Your task to perform on an android device: turn off notifications settings in the gmail app Image 0: 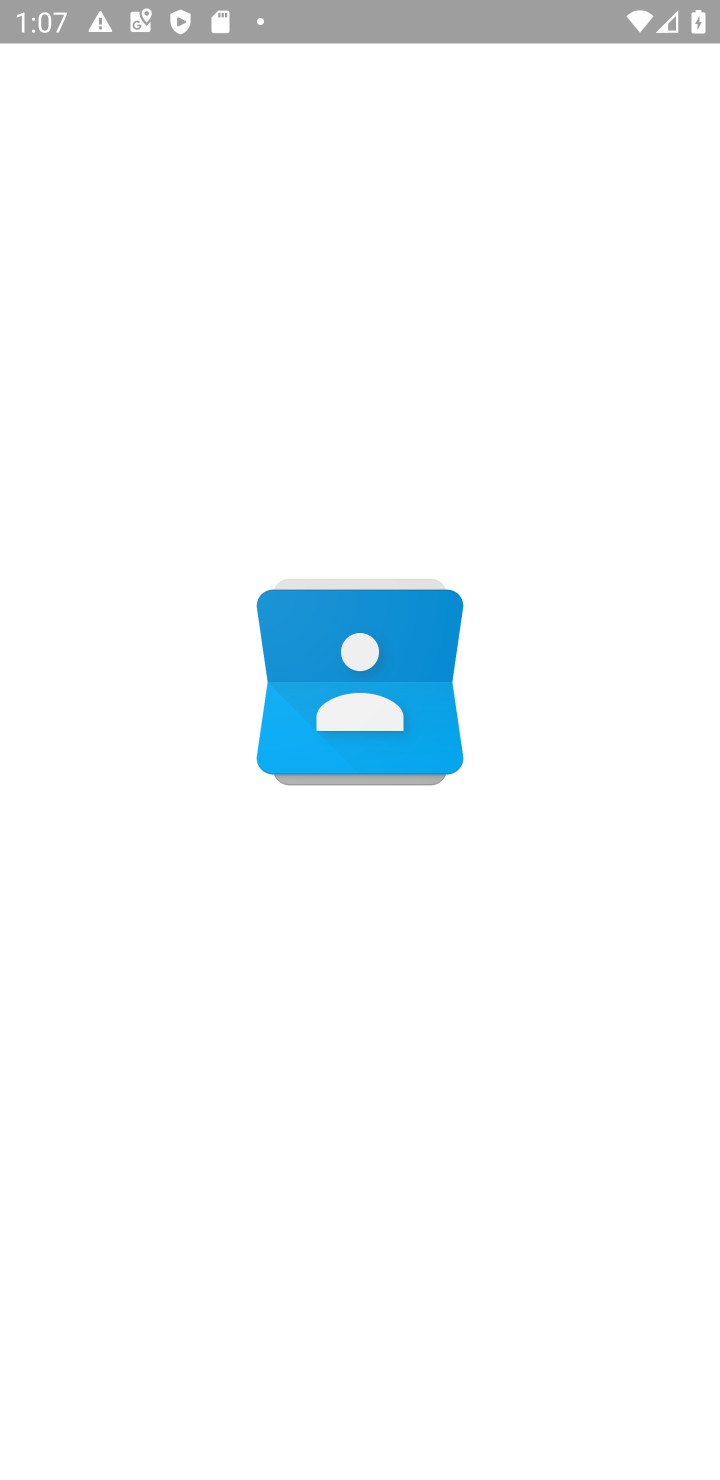
Step 0: press back button
Your task to perform on an android device: turn off notifications settings in the gmail app Image 1: 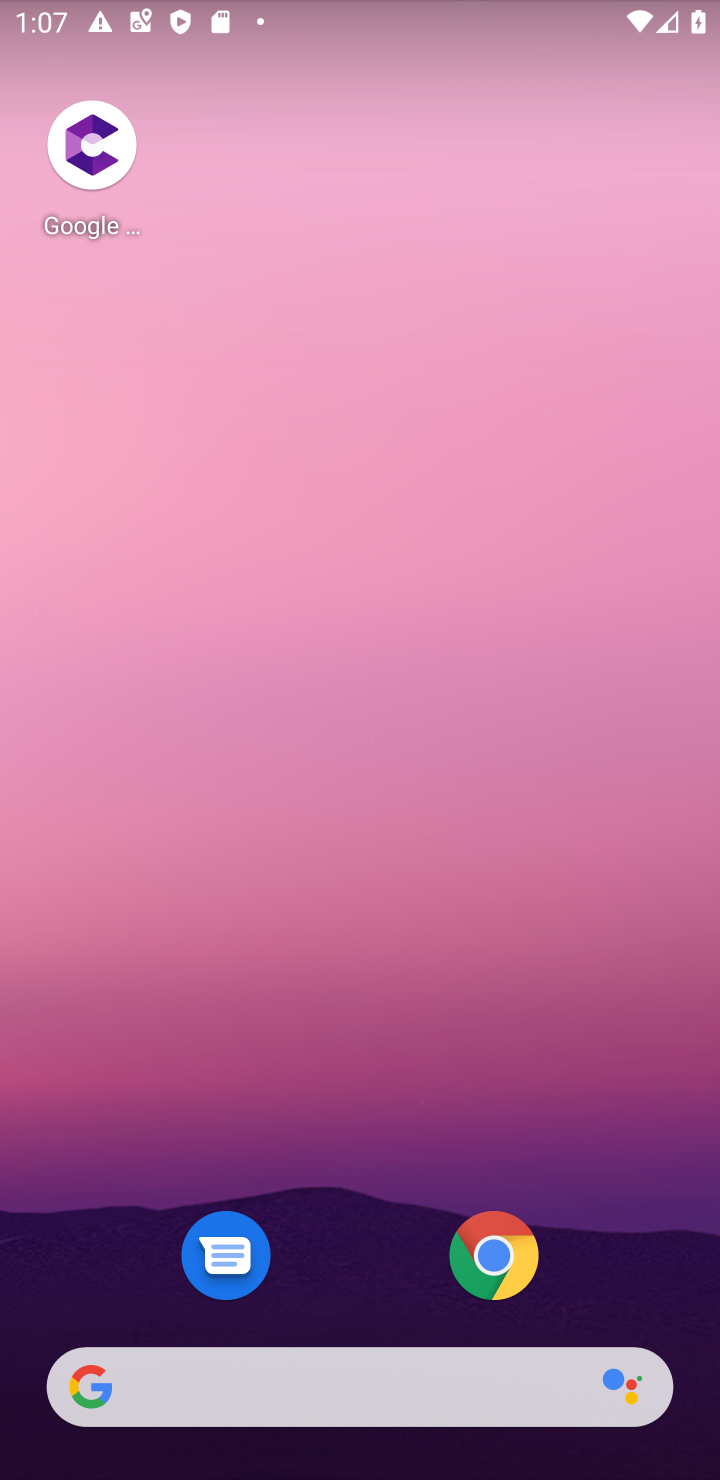
Step 1: drag from (657, 1219) to (370, 234)
Your task to perform on an android device: turn off notifications settings in the gmail app Image 2: 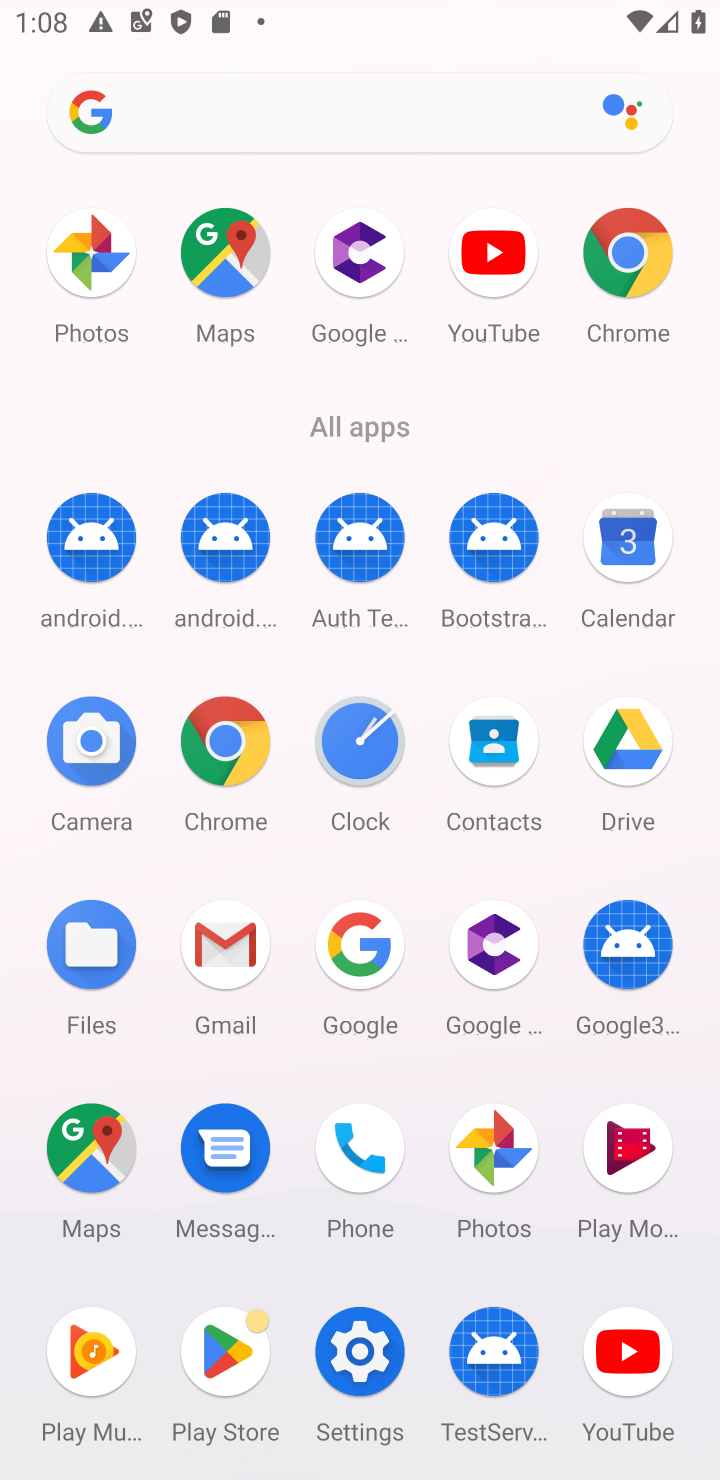
Step 2: click (241, 982)
Your task to perform on an android device: turn off notifications settings in the gmail app Image 3: 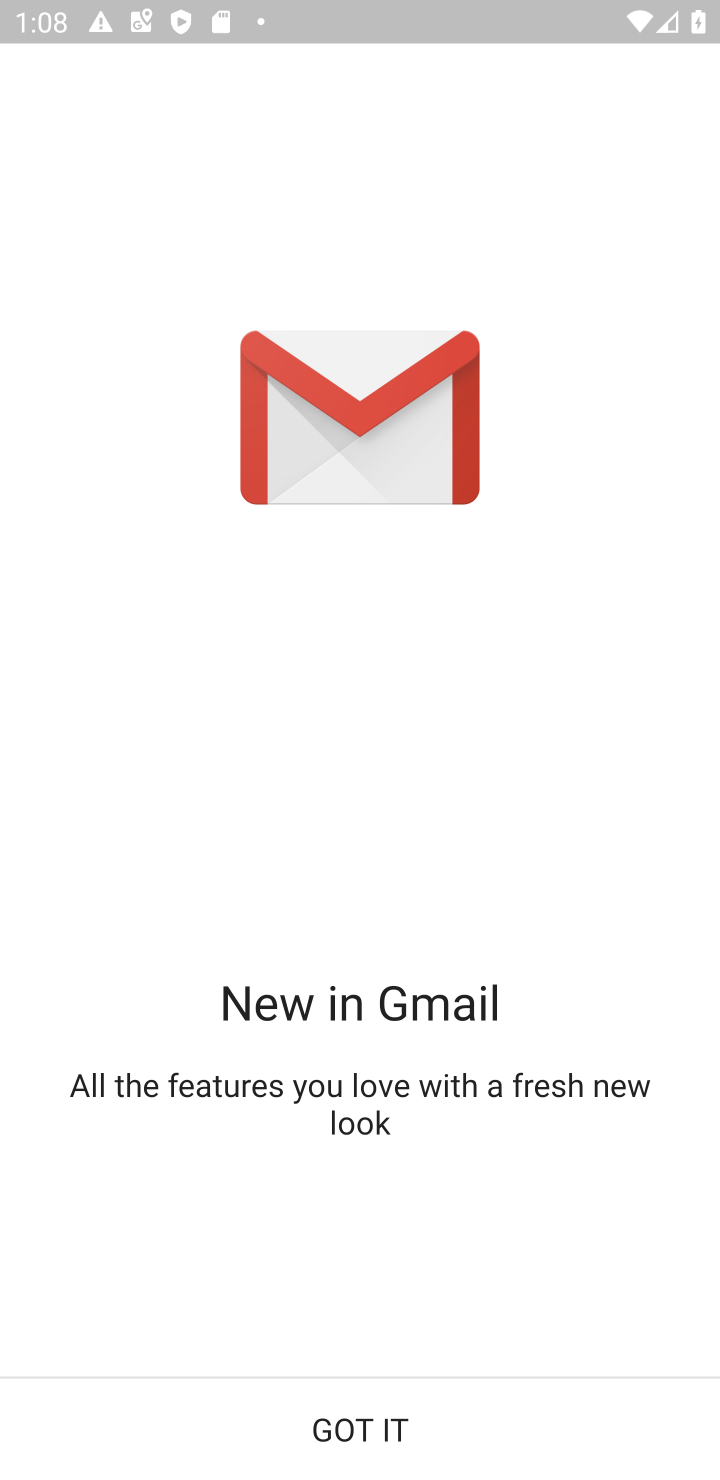
Step 3: click (397, 1424)
Your task to perform on an android device: turn off notifications settings in the gmail app Image 4: 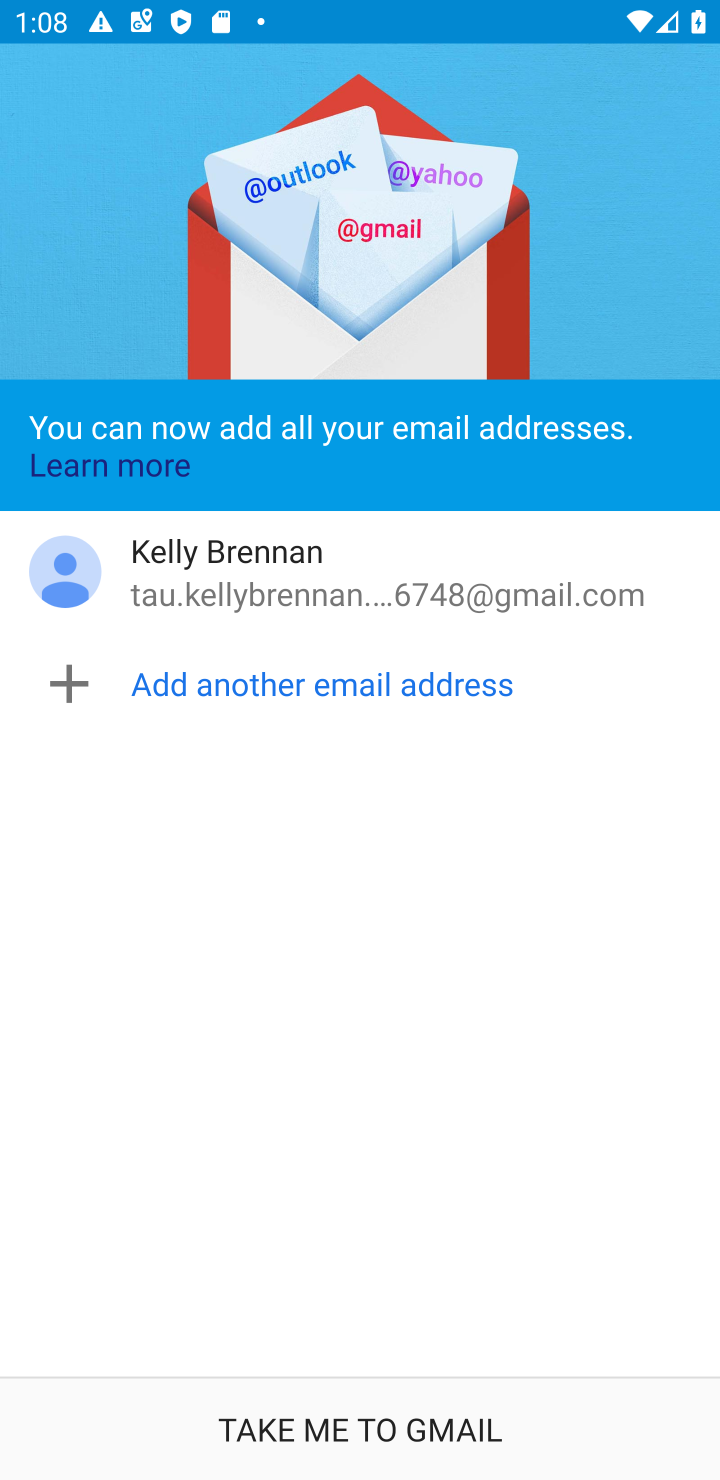
Step 4: click (398, 1424)
Your task to perform on an android device: turn off notifications settings in the gmail app Image 5: 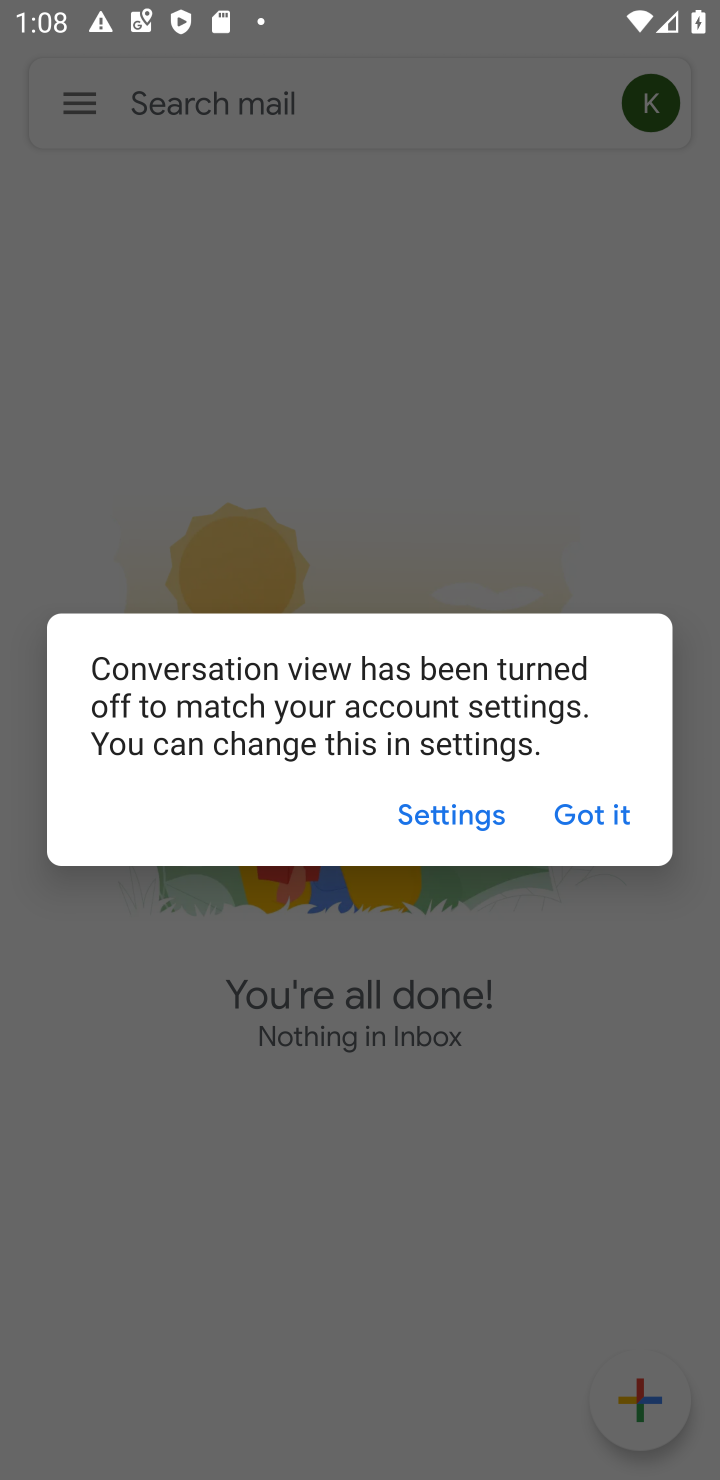
Step 5: click (619, 826)
Your task to perform on an android device: turn off notifications settings in the gmail app Image 6: 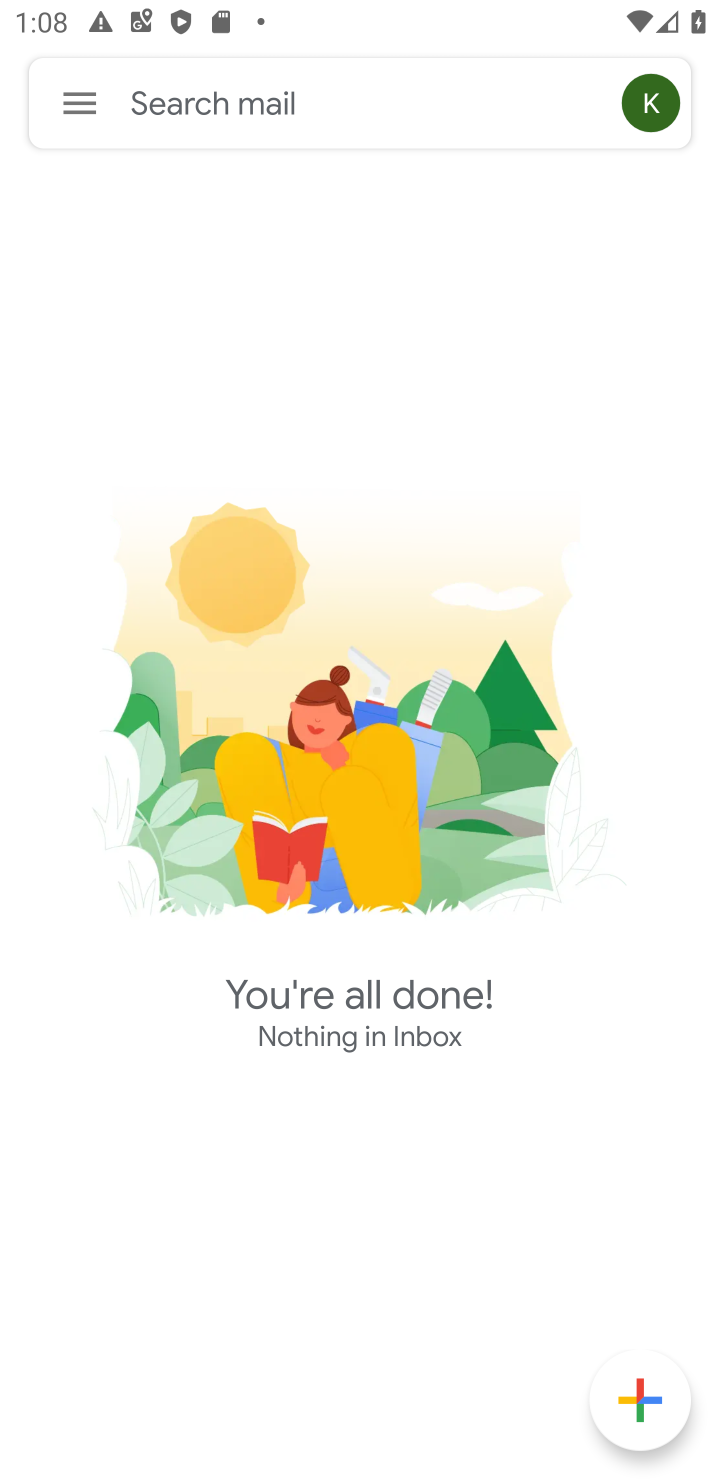
Step 6: click (82, 97)
Your task to perform on an android device: turn off notifications settings in the gmail app Image 7: 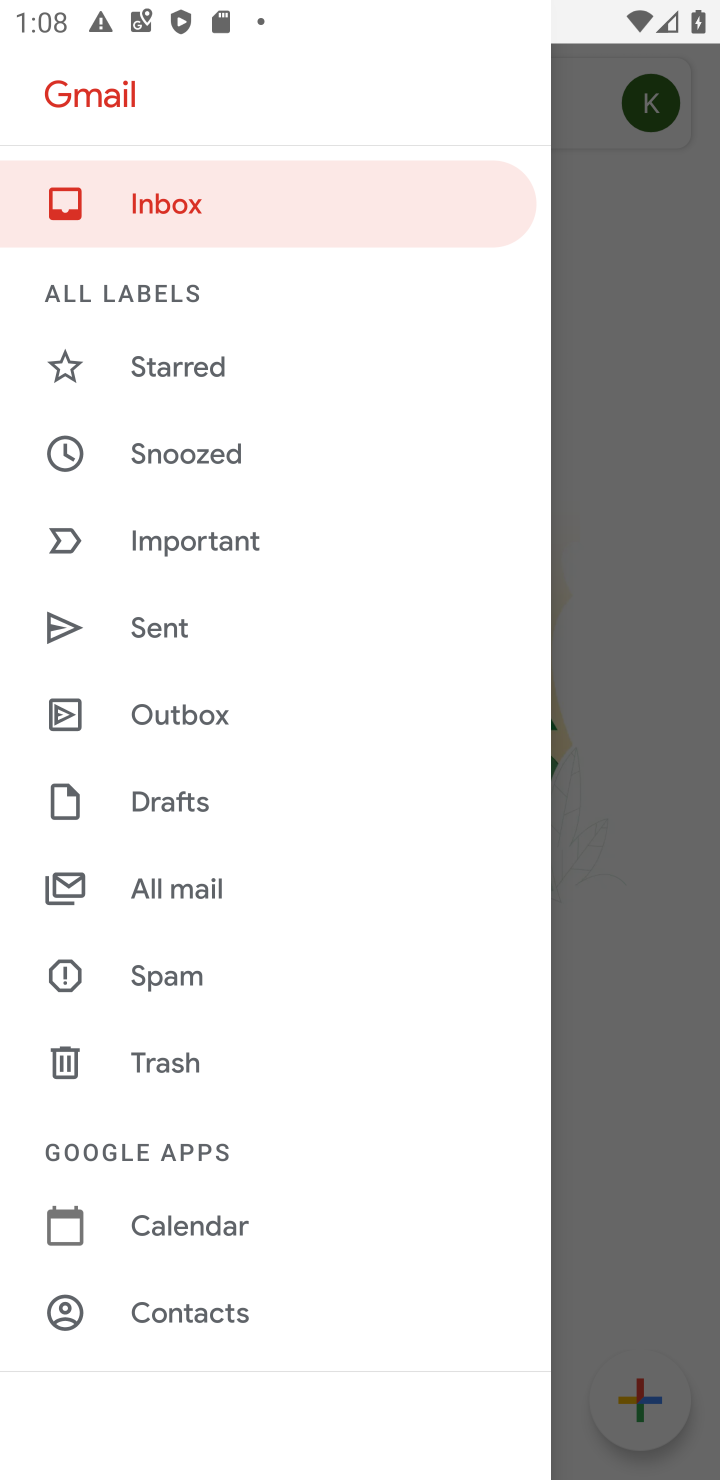
Step 7: drag from (338, 1283) to (167, 433)
Your task to perform on an android device: turn off notifications settings in the gmail app Image 8: 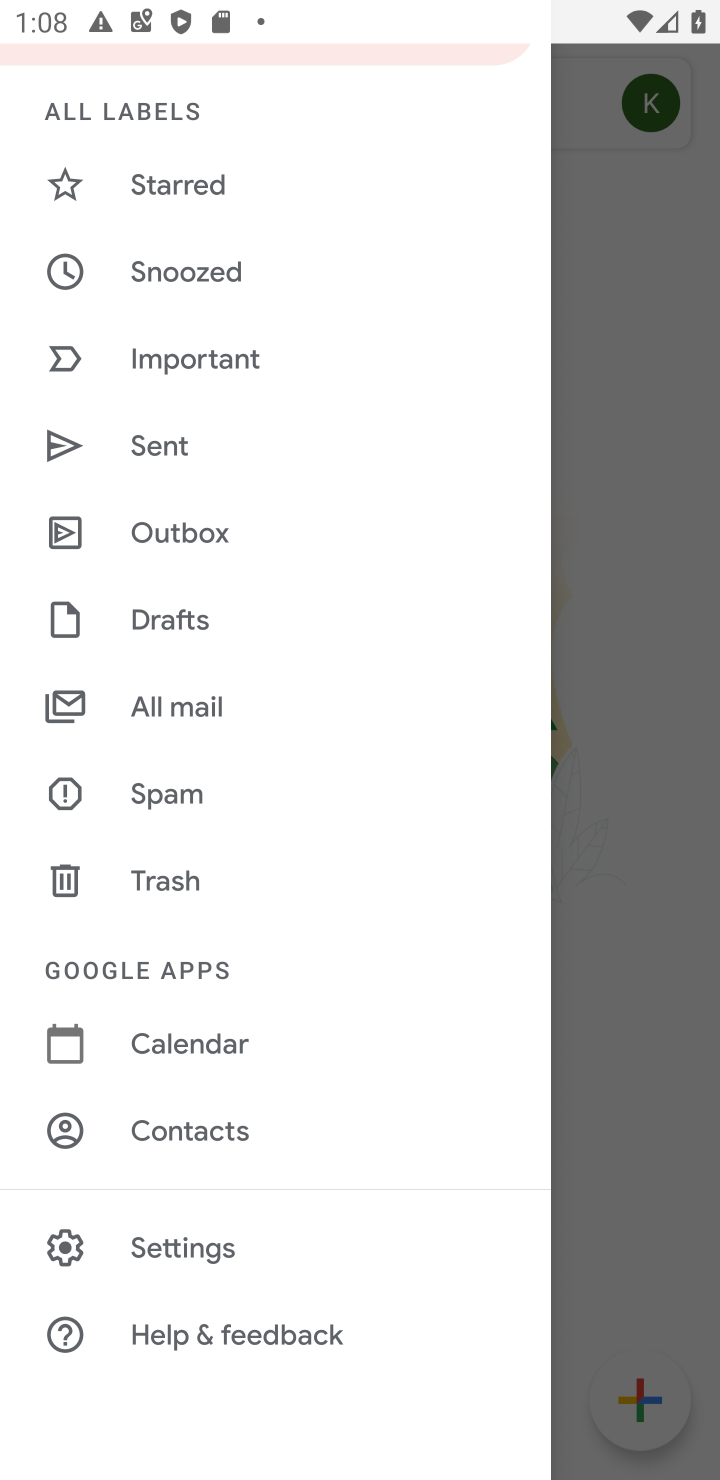
Step 8: click (256, 1267)
Your task to perform on an android device: turn off notifications settings in the gmail app Image 9: 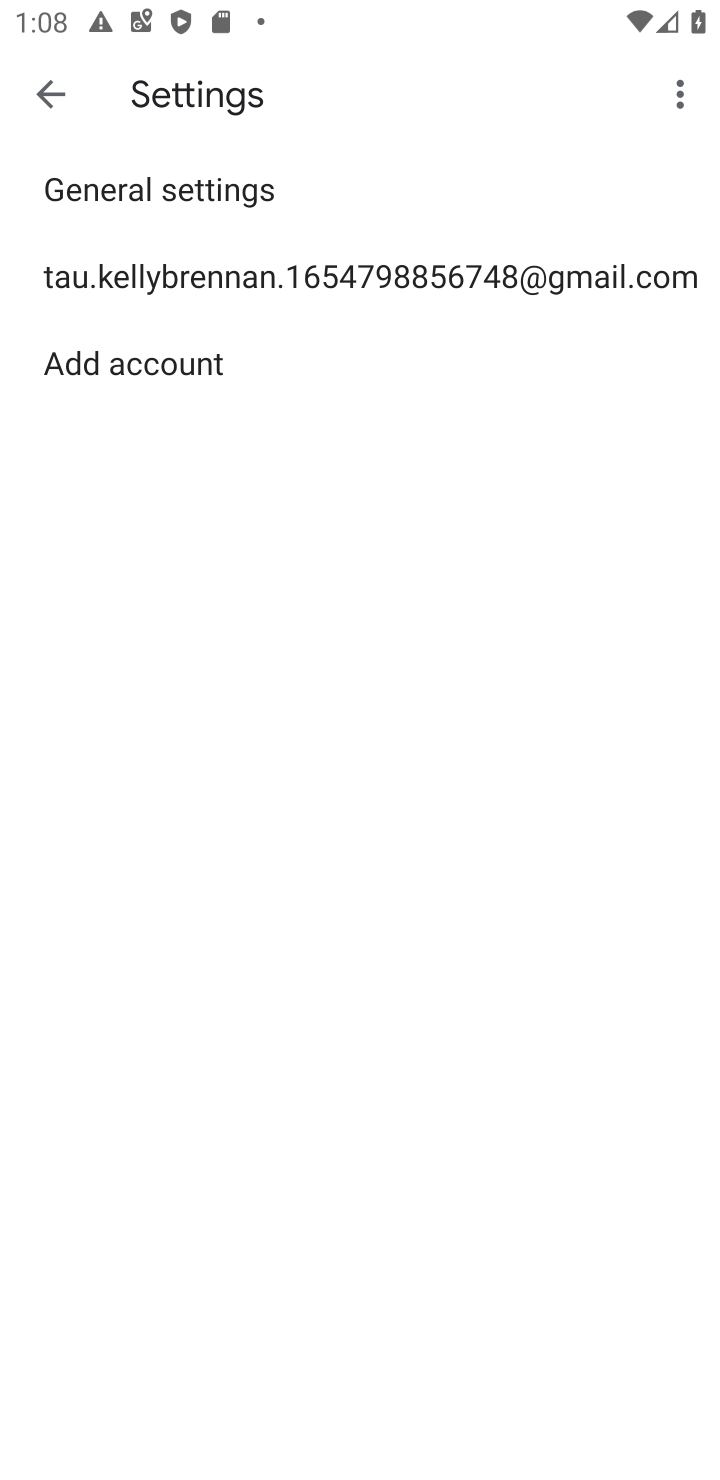
Step 9: click (523, 276)
Your task to perform on an android device: turn off notifications settings in the gmail app Image 10: 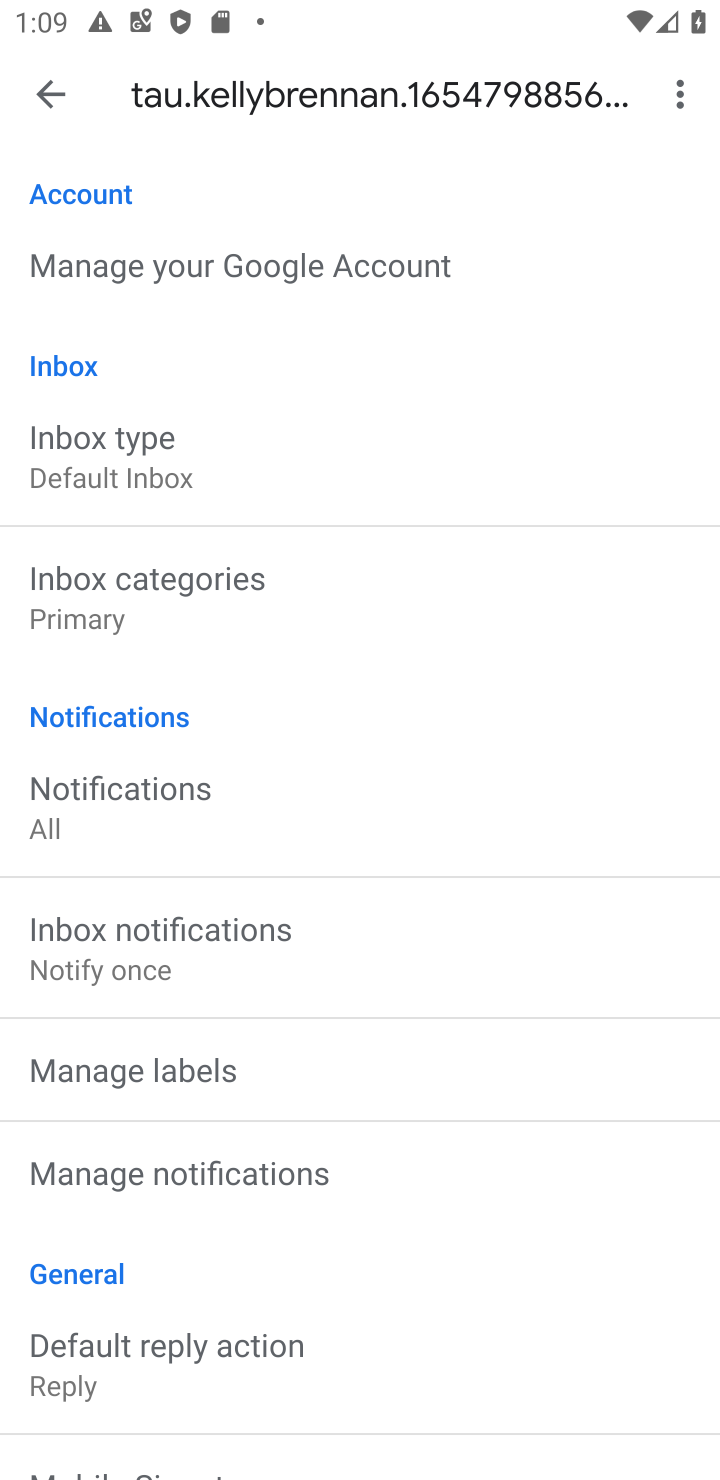
Step 10: click (300, 1188)
Your task to perform on an android device: turn off notifications settings in the gmail app Image 11: 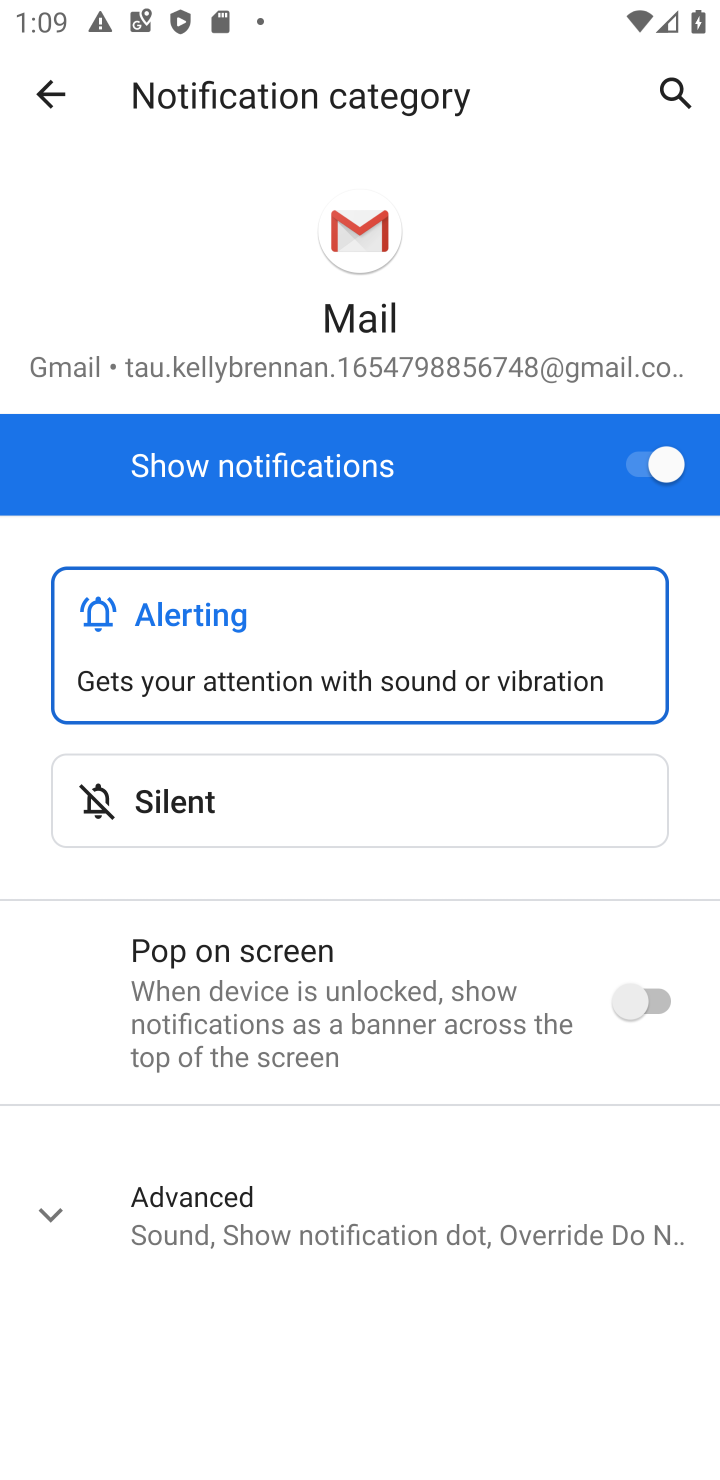
Step 11: click (621, 1248)
Your task to perform on an android device: turn off notifications settings in the gmail app Image 12: 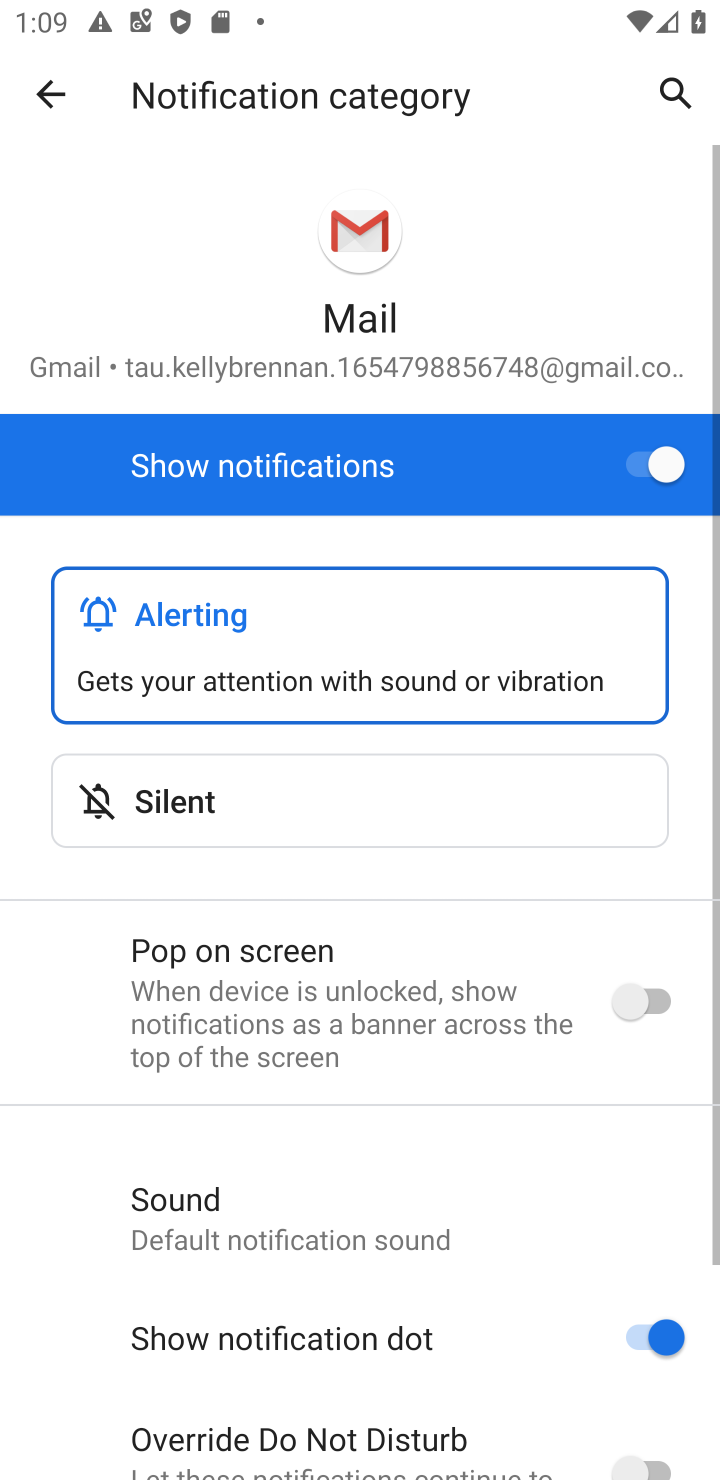
Step 12: drag from (581, 1128) to (394, 401)
Your task to perform on an android device: turn off notifications settings in the gmail app Image 13: 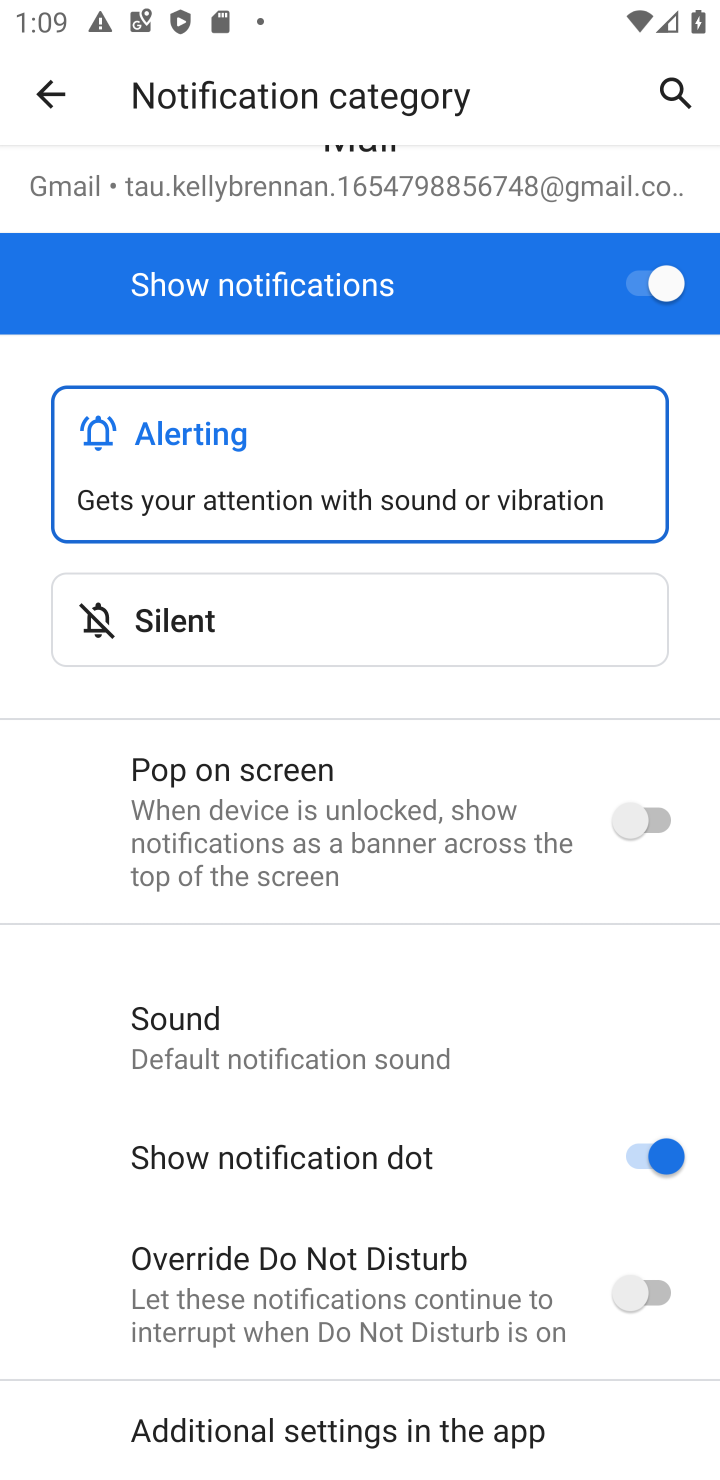
Step 13: click (649, 1177)
Your task to perform on an android device: turn off notifications settings in the gmail app Image 14: 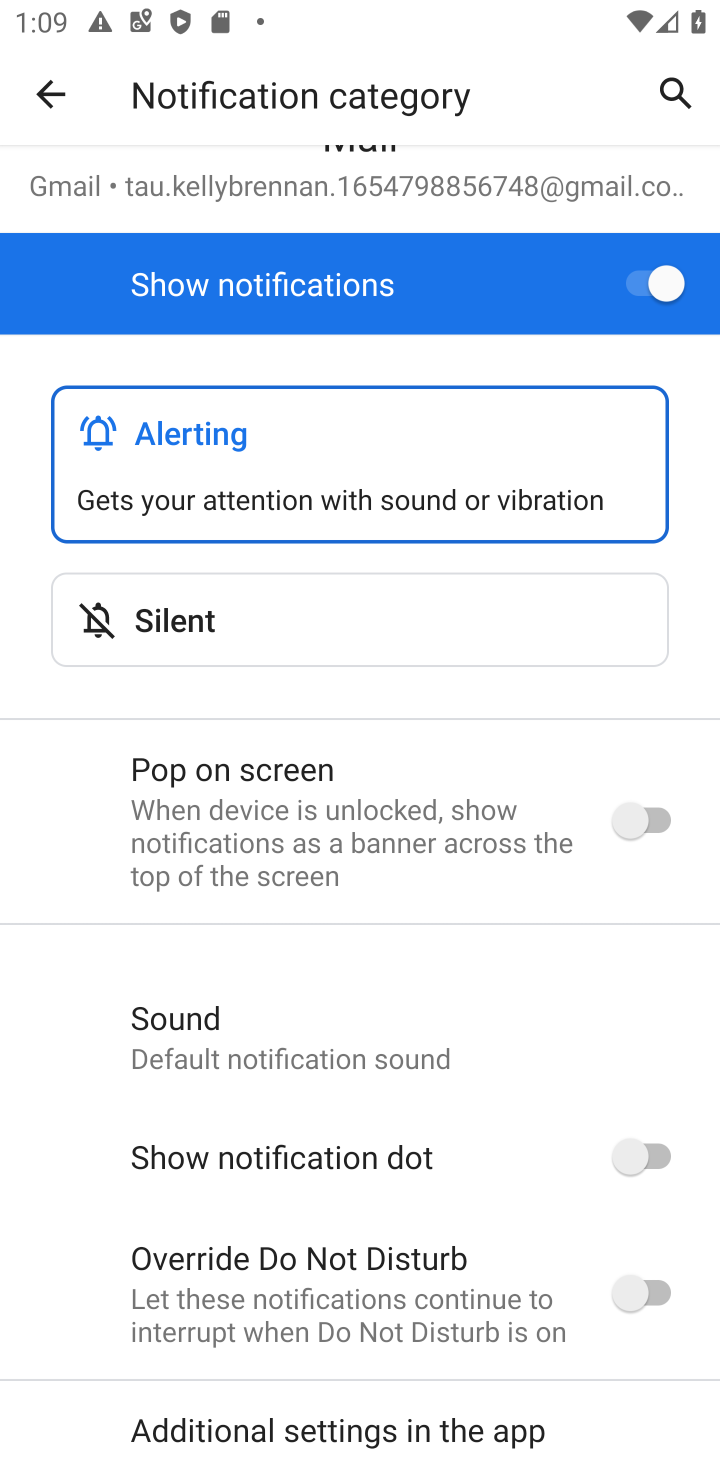
Step 14: task complete